Your task to perform on an android device: Clear the cart on costco. Add razer blade to the cart on costco, then select checkout. Image 0: 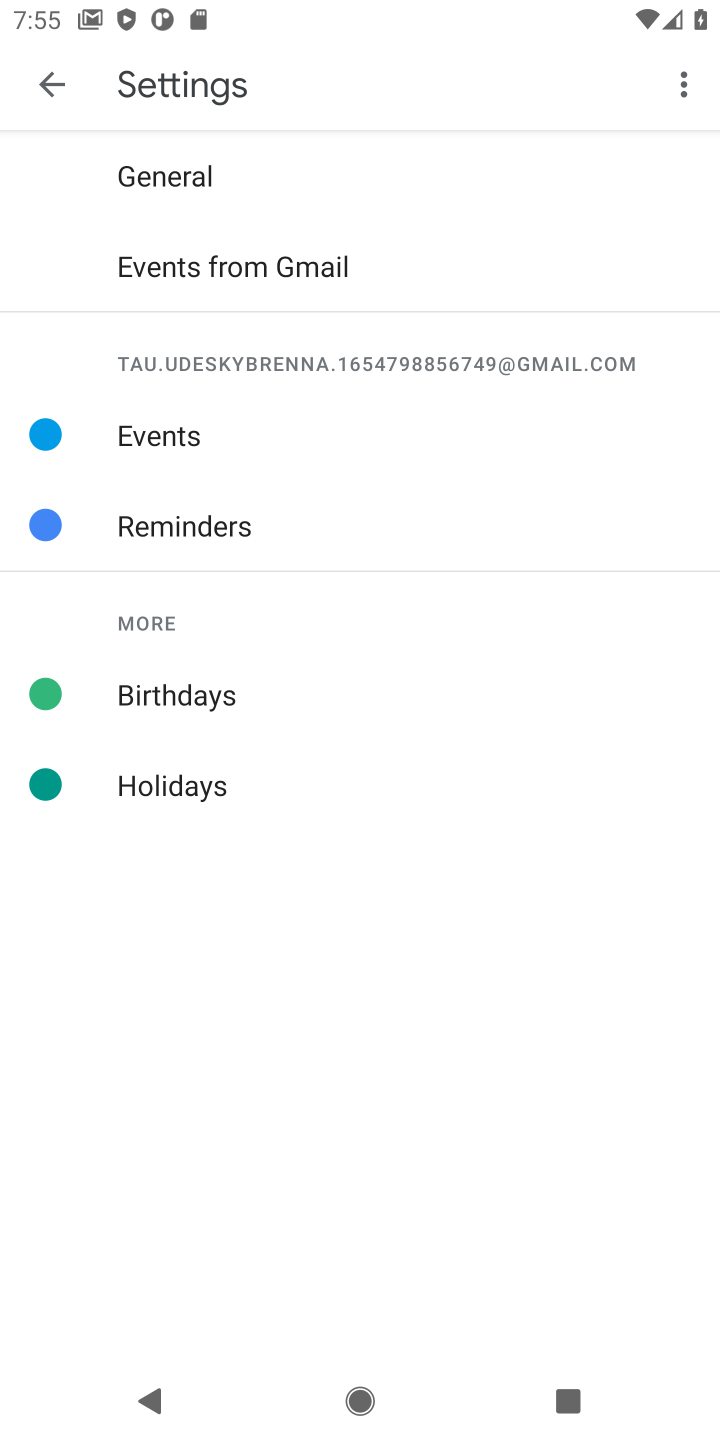
Step 0: press home button
Your task to perform on an android device: Clear the cart on costco. Add razer blade to the cart on costco, then select checkout. Image 1: 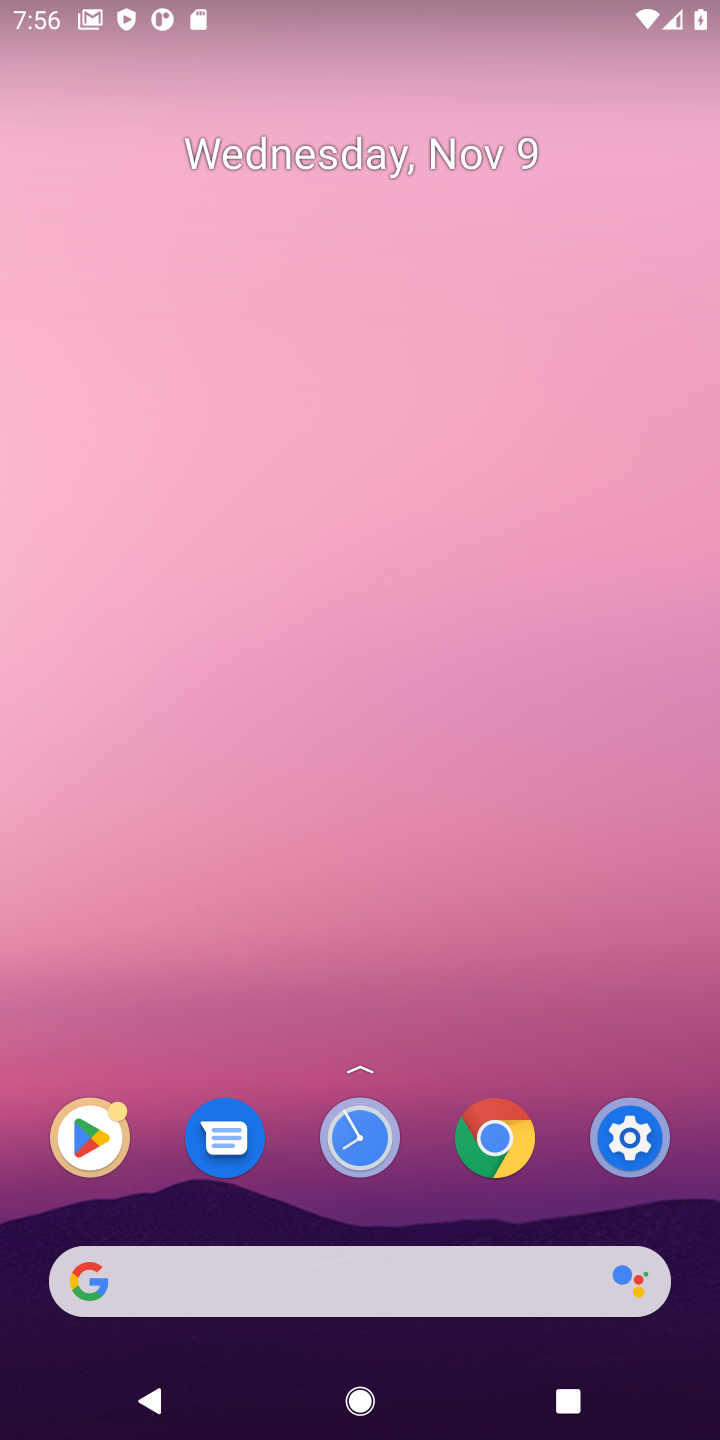
Step 1: drag from (423, 877) to (446, 186)
Your task to perform on an android device: Clear the cart on costco. Add razer blade to the cart on costco, then select checkout. Image 2: 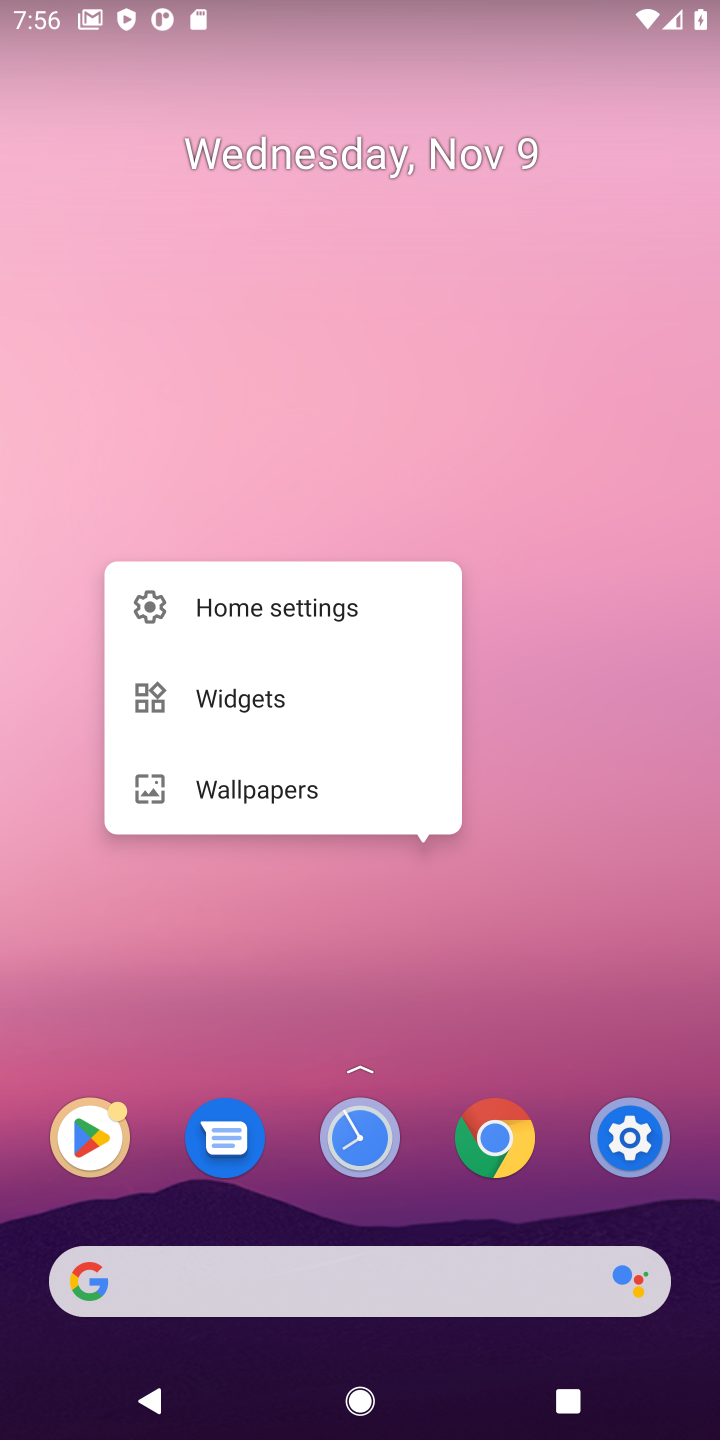
Step 2: click (602, 753)
Your task to perform on an android device: Clear the cart on costco. Add razer blade to the cart on costco, then select checkout. Image 3: 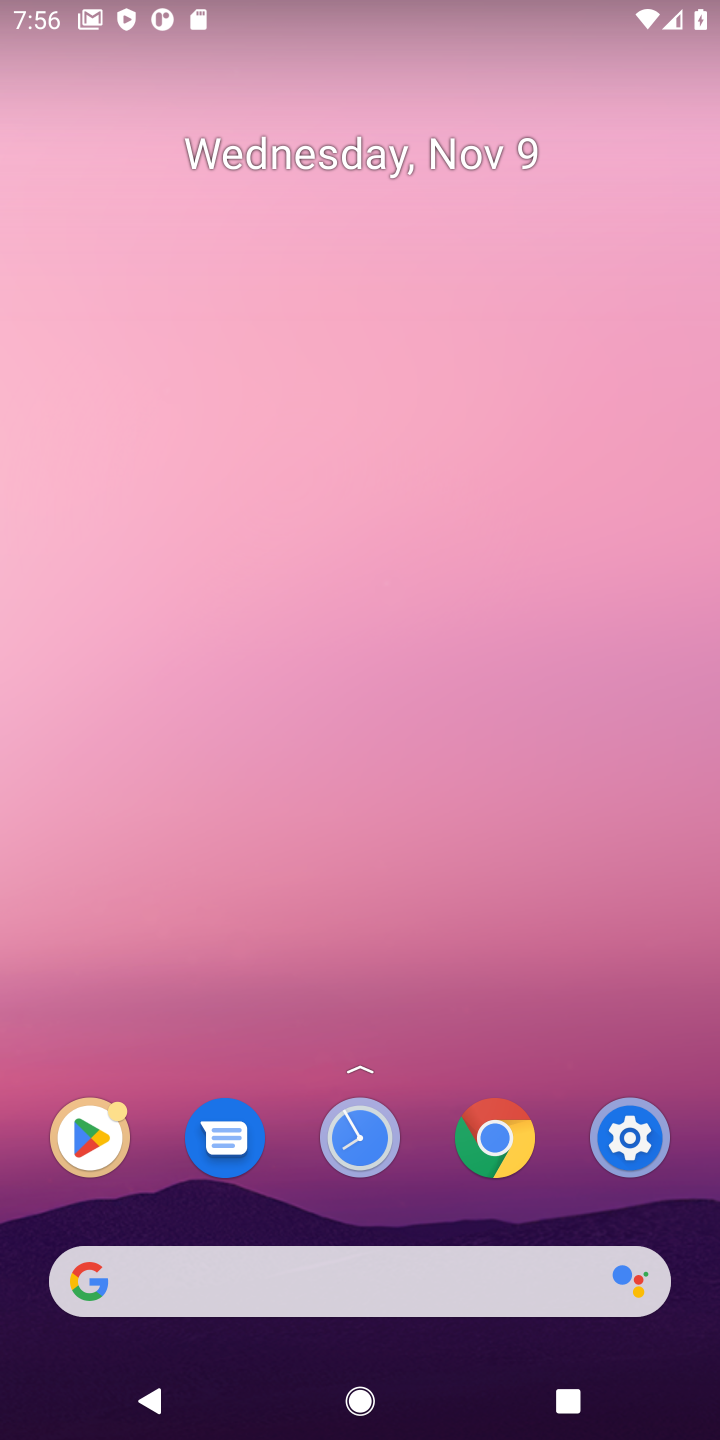
Step 3: drag from (438, 845) to (401, 189)
Your task to perform on an android device: Clear the cart on costco. Add razer blade to the cart on costco, then select checkout. Image 4: 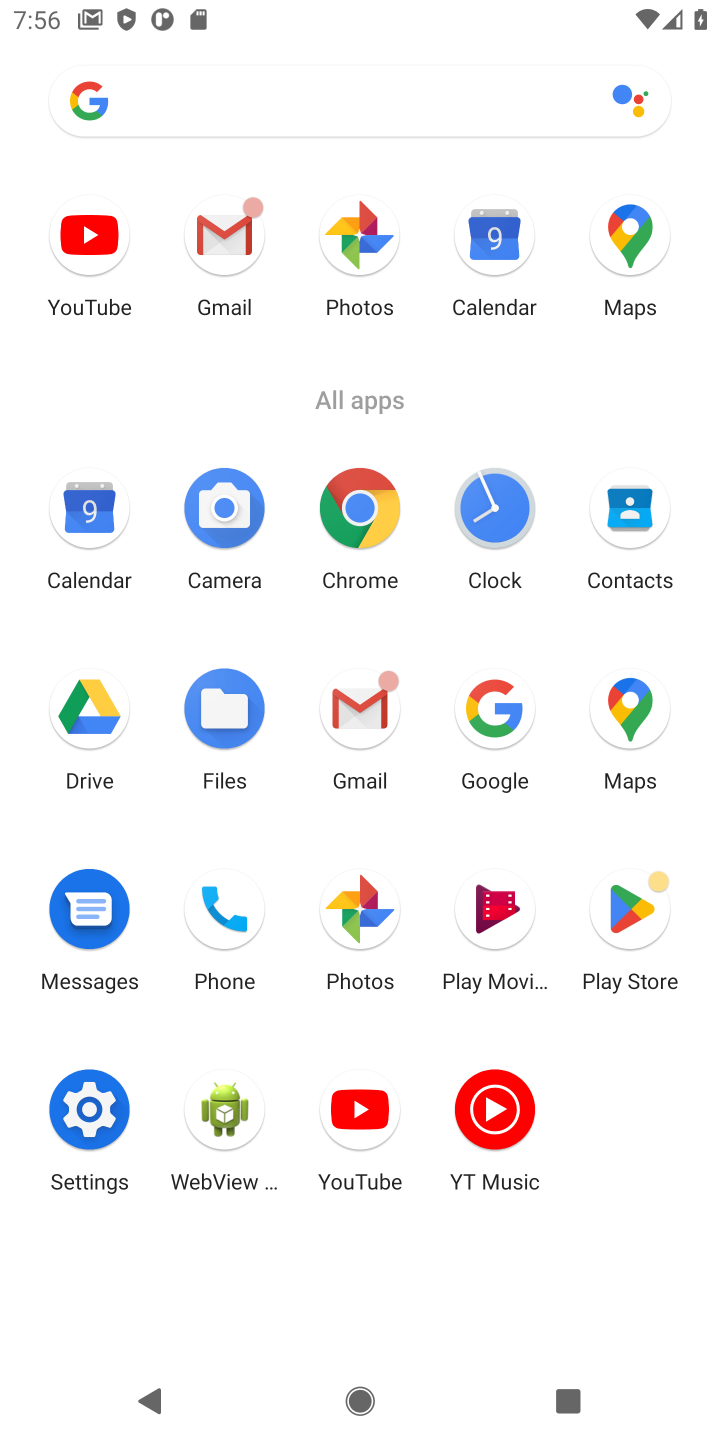
Step 4: click (356, 523)
Your task to perform on an android device: Clear the cart on costco. Add razer blade to the cart on costco, then select checkout. Image 5: 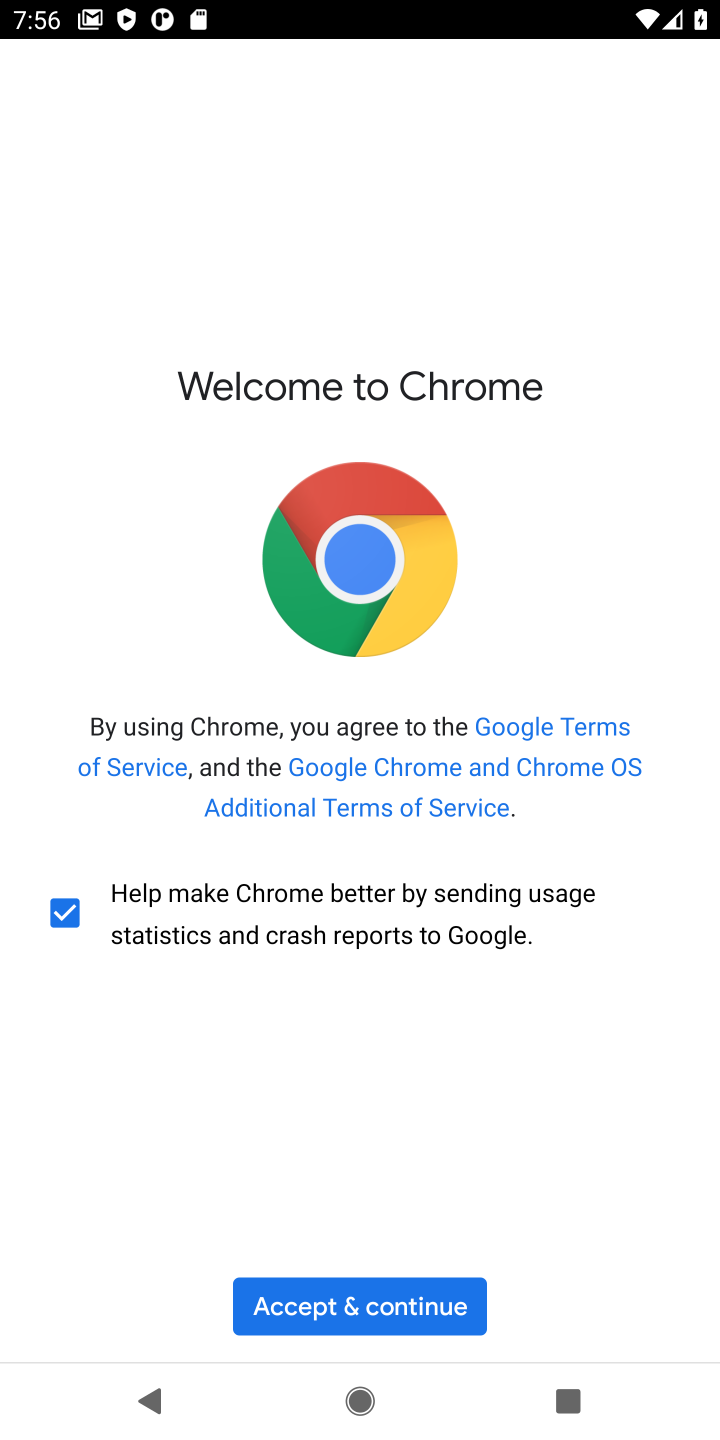
Step 5: click (367, 1310)
Your task to perform on an android device: Clear the cart on costco. Add razer blade to the cart on costco, then select checkout. Image 6: 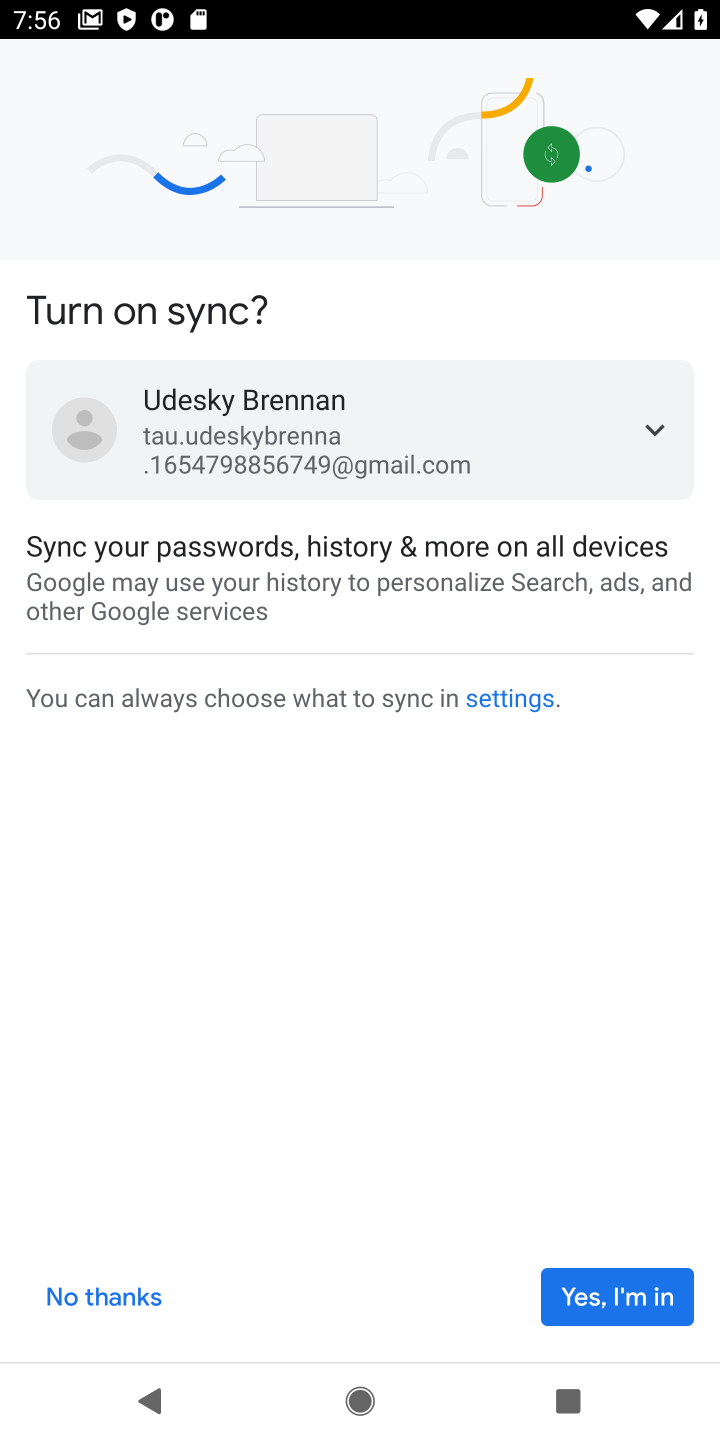
Step 6: click (568, 1283)
Your task to perform on an android device: Clear the cart on costco. Add razer blade to the cart on costco, then select checkout. Image 7: 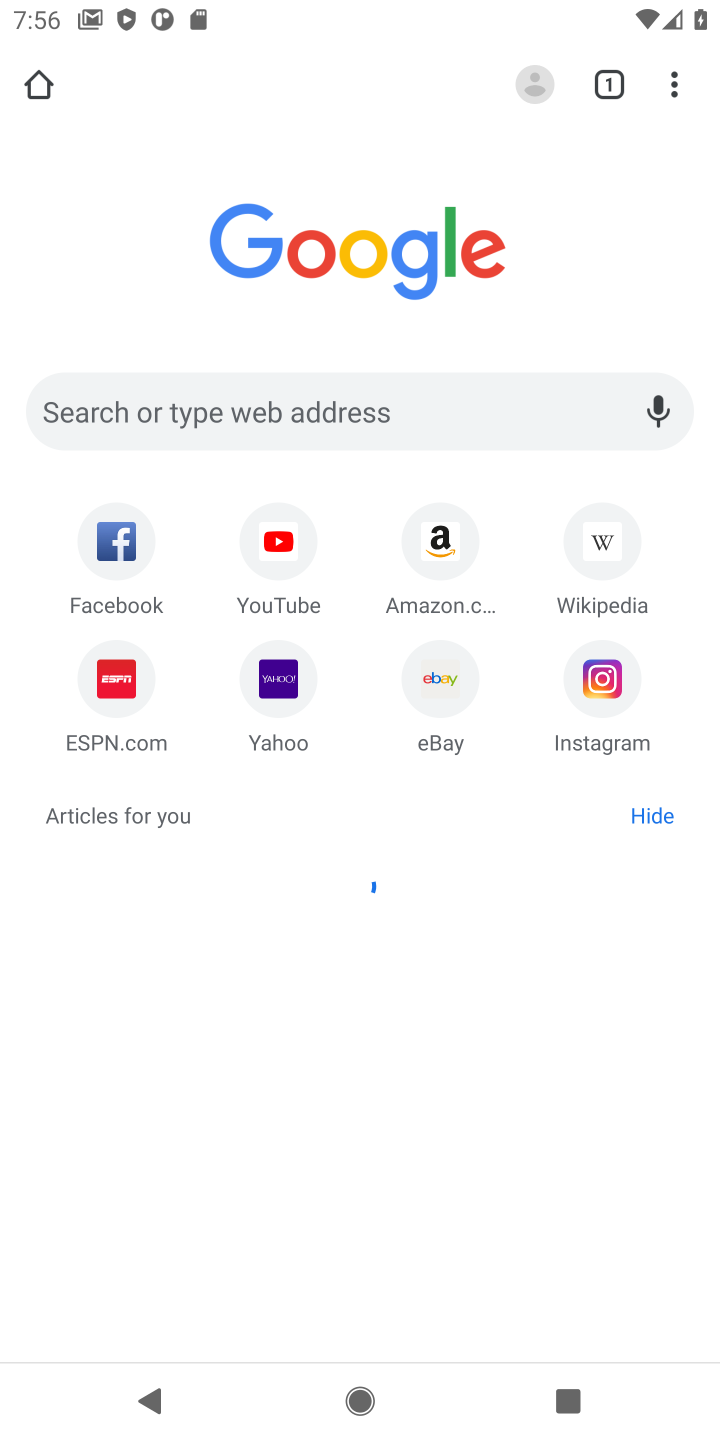
Step 7: click (434, 422)
Your task to perform on an android device: Clear the cart on costco. Add razer blade to the cart on costco, then select checkout. Image 8: 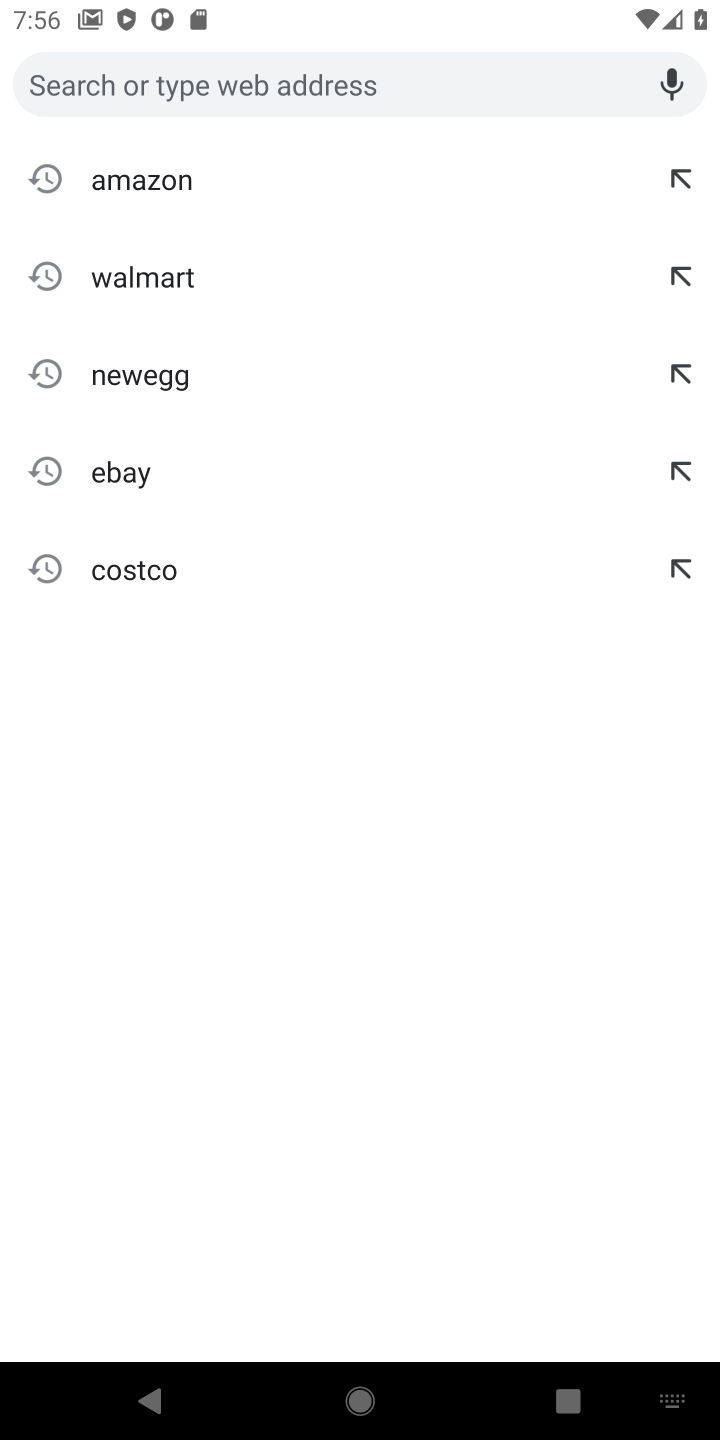
Step 8: type "costco.com"
Your task to perform on an android device: Clear the cart on costco. Add razer blade to the cart on costco, then select checkout. Image 9: 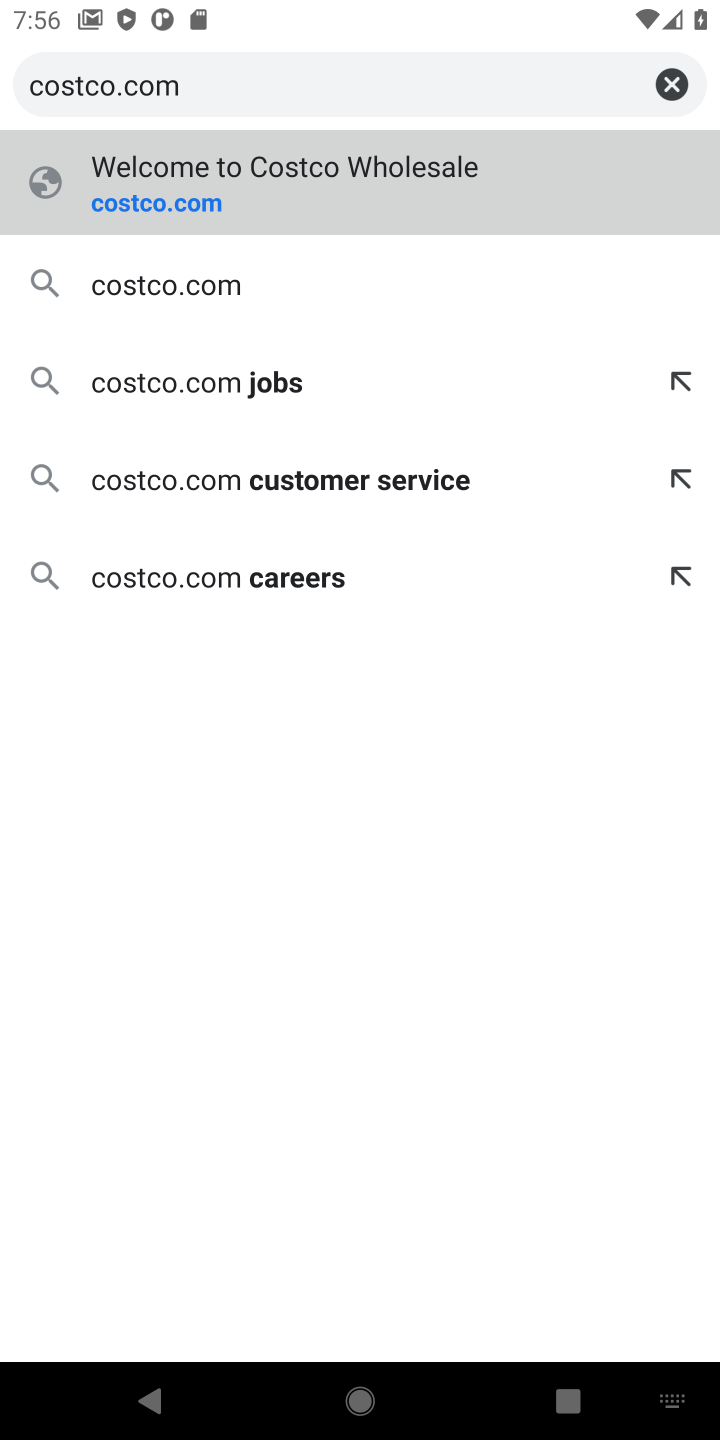
Step 9: press enter
Your task to perform on an android device: Clear the cart on costco. Add razer blade to the cart on costco, then select checkout. Image 10: 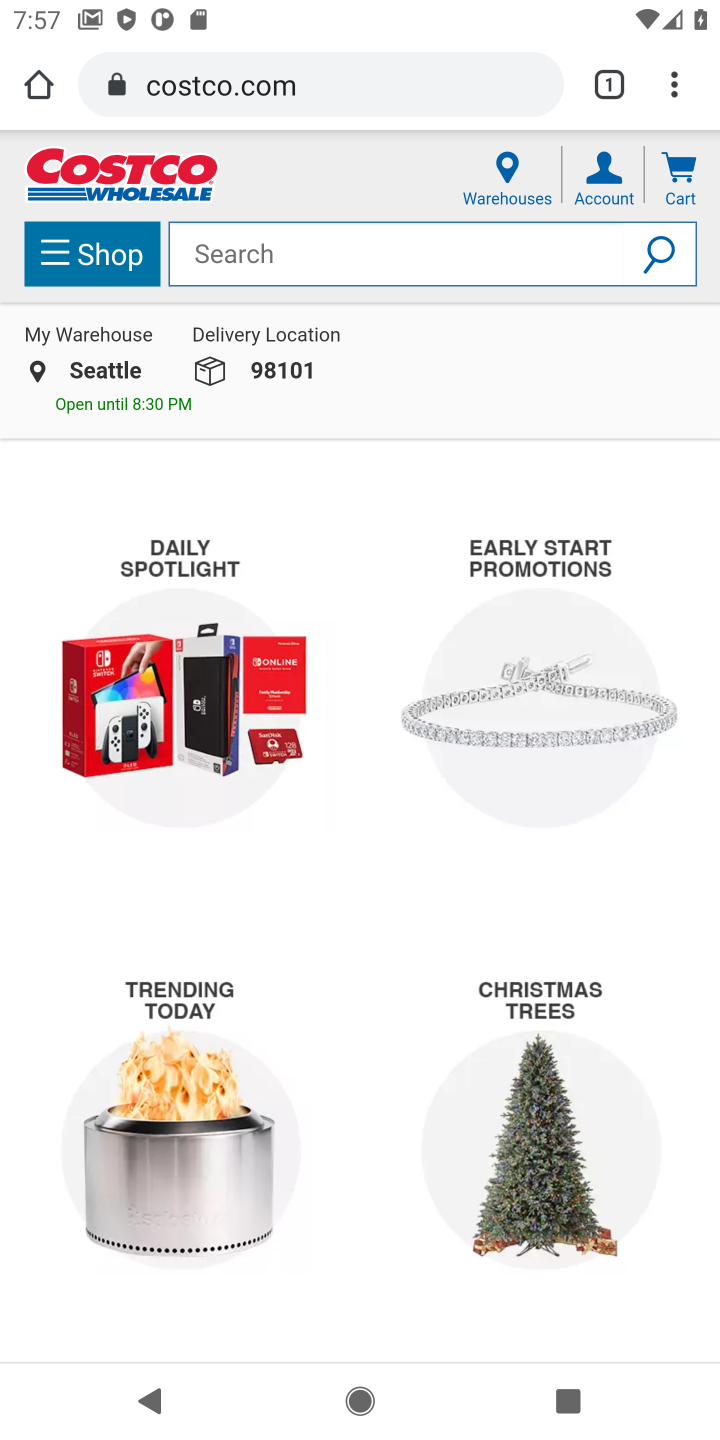
Step 10: click (671, 167)
Your task to perform on an android device: Clear the cart on costco. Add razer blade to the cart on costco, then select checkout. Image 11: 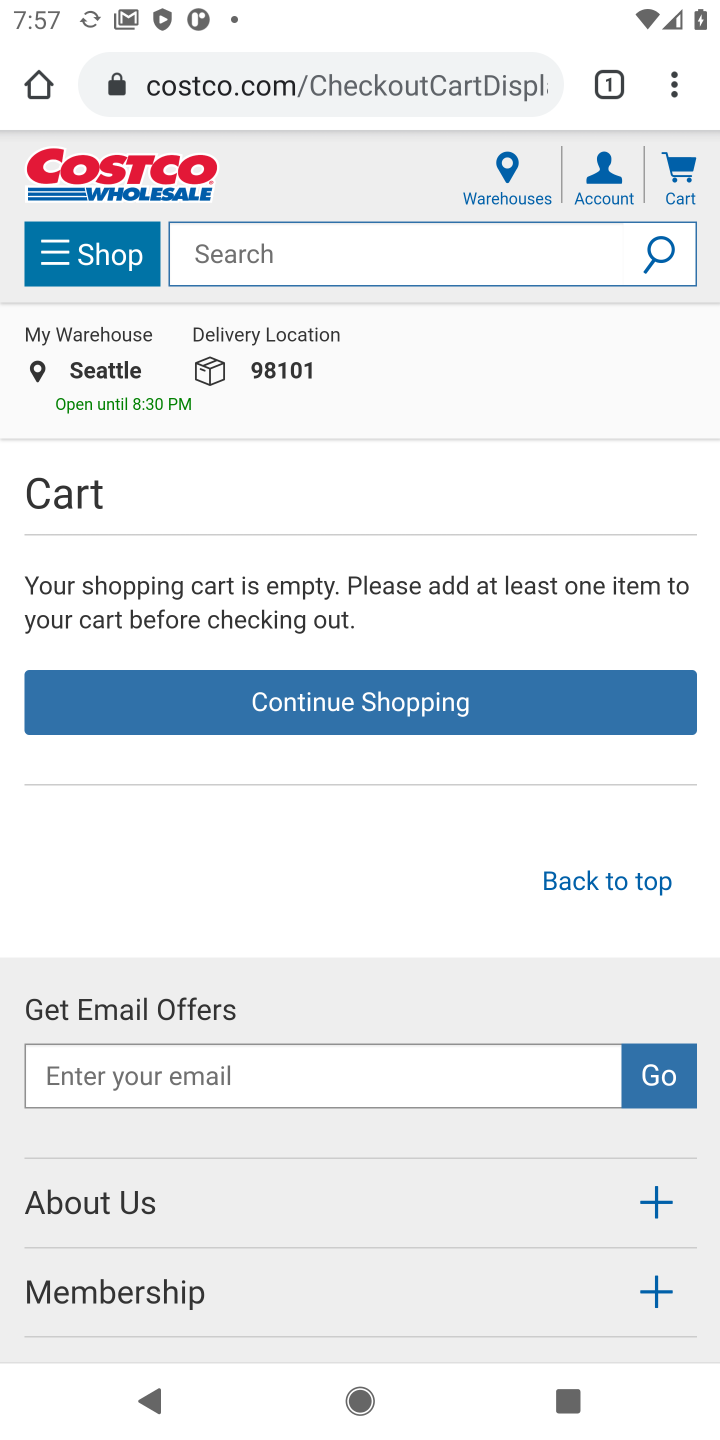
Step 11: click (431, 250)
Your task to perform on an android device: Clear the cart on costco. Add razer blade to the cart on costco, then select checkout. Image 12: 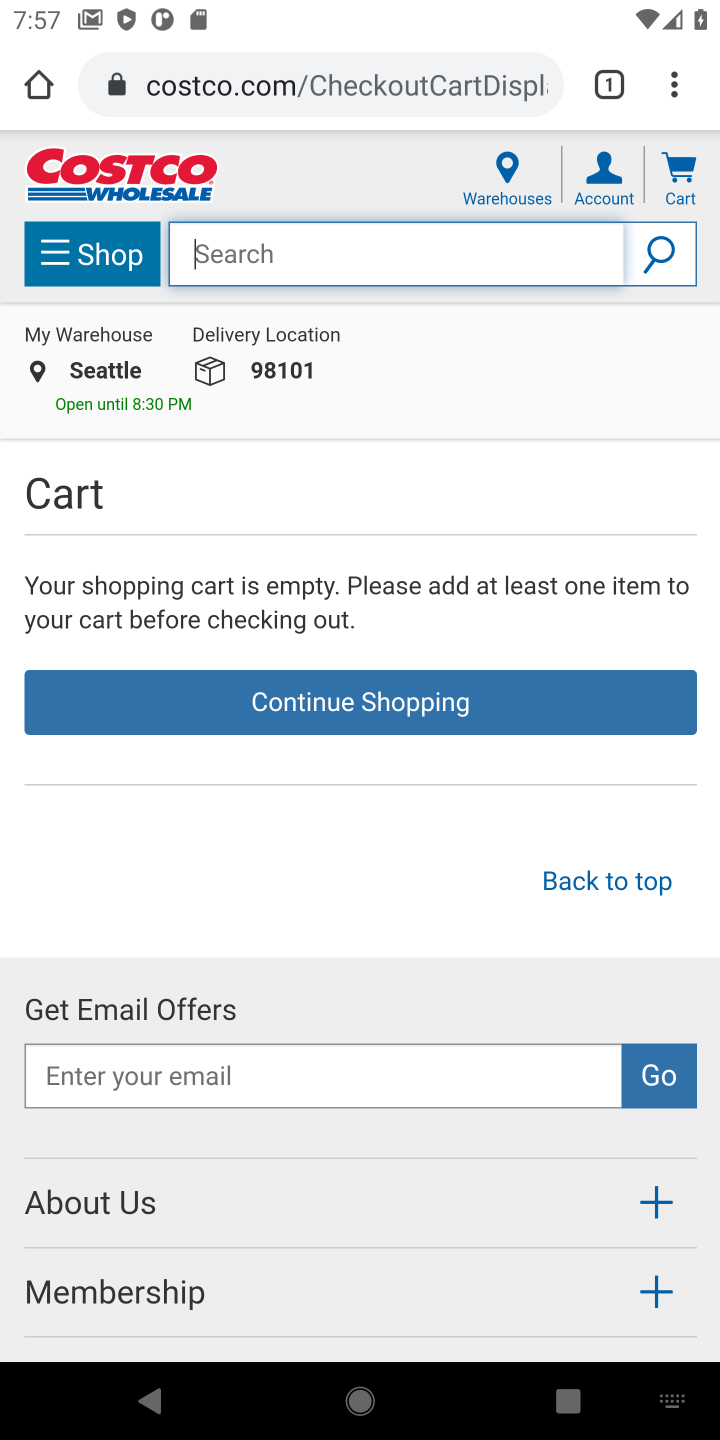
Step 12: type "razer blade"
Your task to perform on an android device: Clear the cart on costco. Add razer blade to the cart on costco, then select checkout. Image 13: 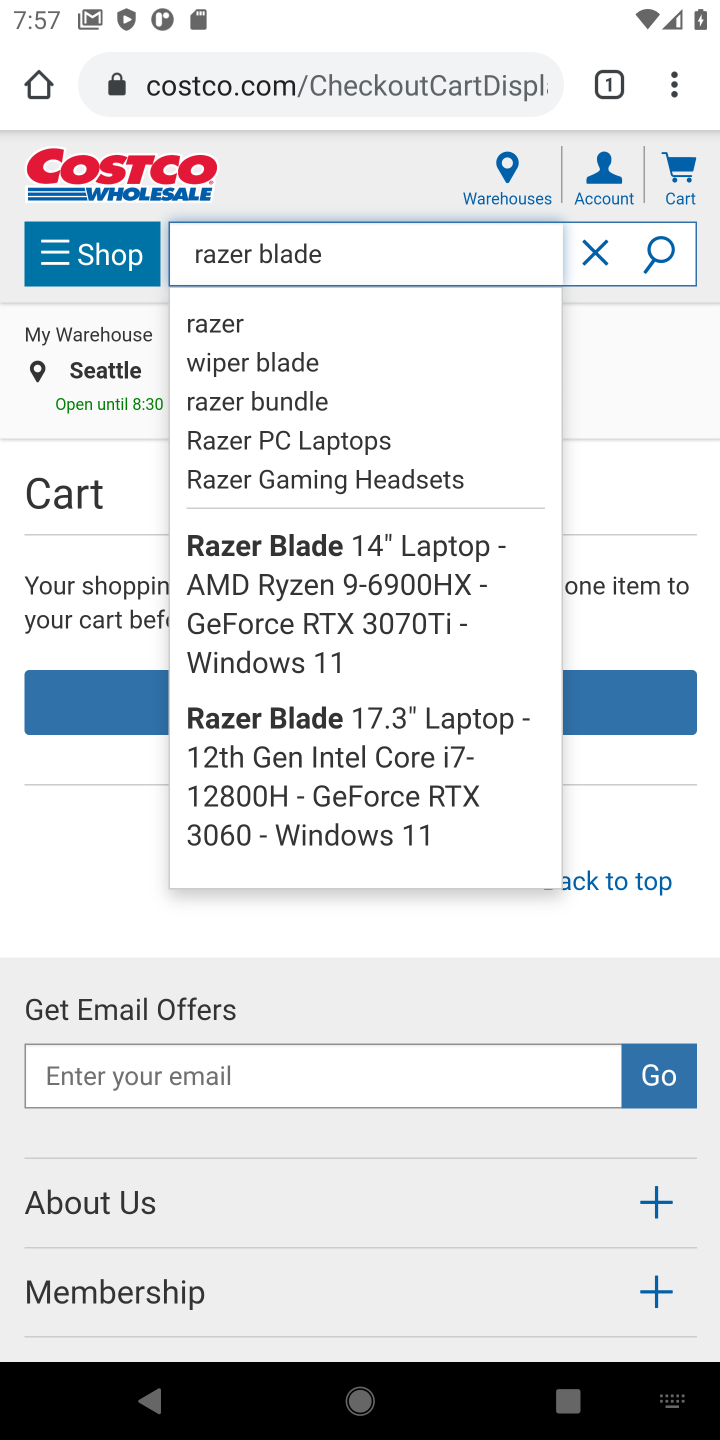
Step 13: press enter
Your task to perform on an android device: Clear the cart on costco. Add razer blade to the cart on costco, then select checkout. Image 14: 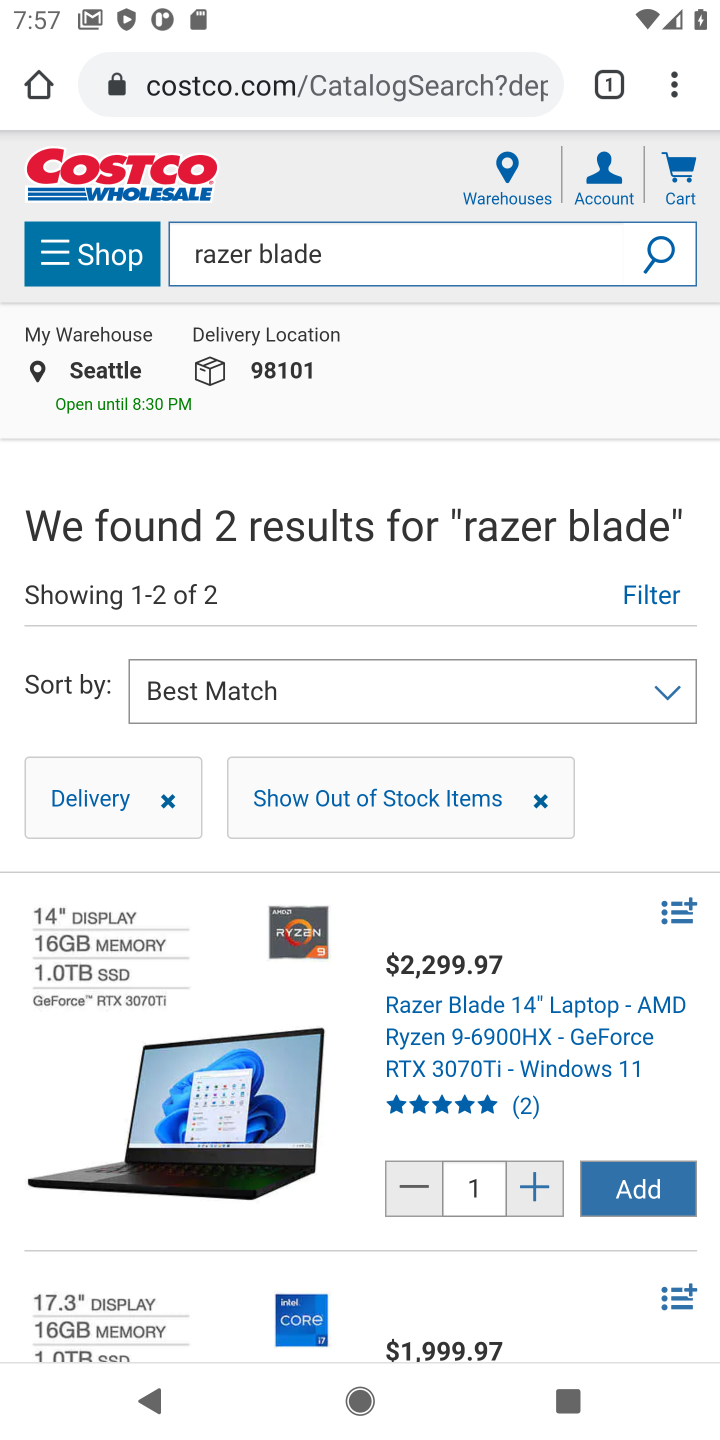
Step 14: click (673, 1189)
Your task to perform on an android device: Clear the cart on costco. Add razer blade to the cart on costco, then select checkout. Image 15: 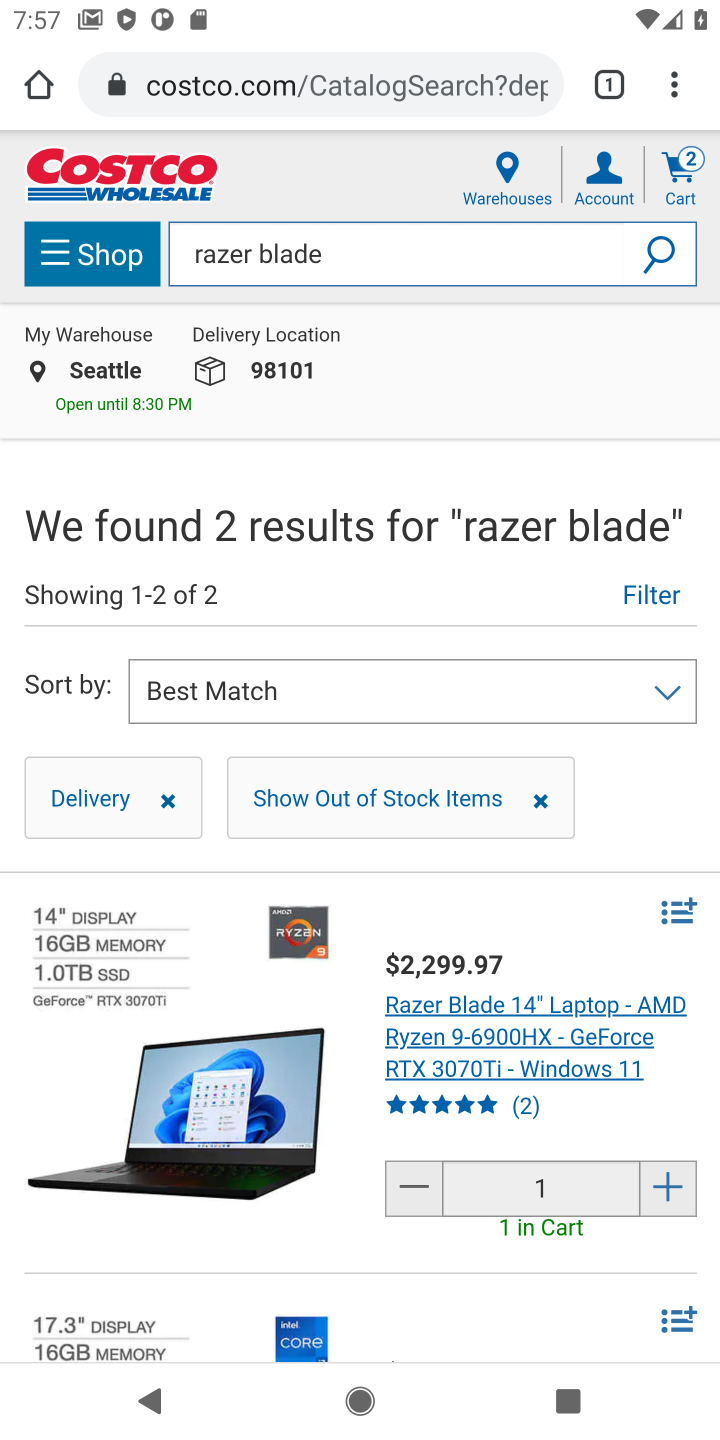
Step 15: drag from (365, 1115) to (310, 667)
Your task to perform on an android device: Clear the cart on costco. Add razer blade to the cart on costco, then select checkout. Image 16: 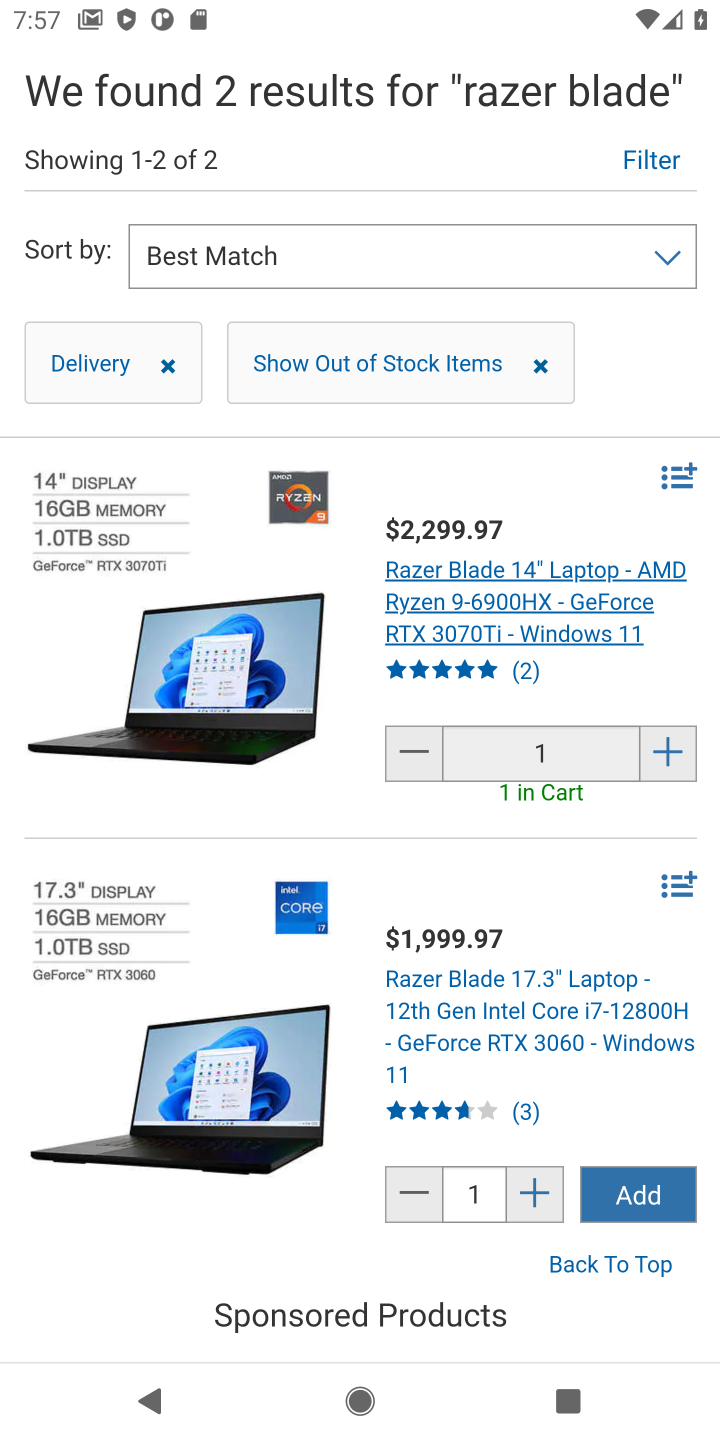
Step 16: drag from (546, 348) to (397, 1309)
Your task to perform on an android device: Clear the cart on costco. Add razer blade to the cart on costco, then select checkout. Image 17: 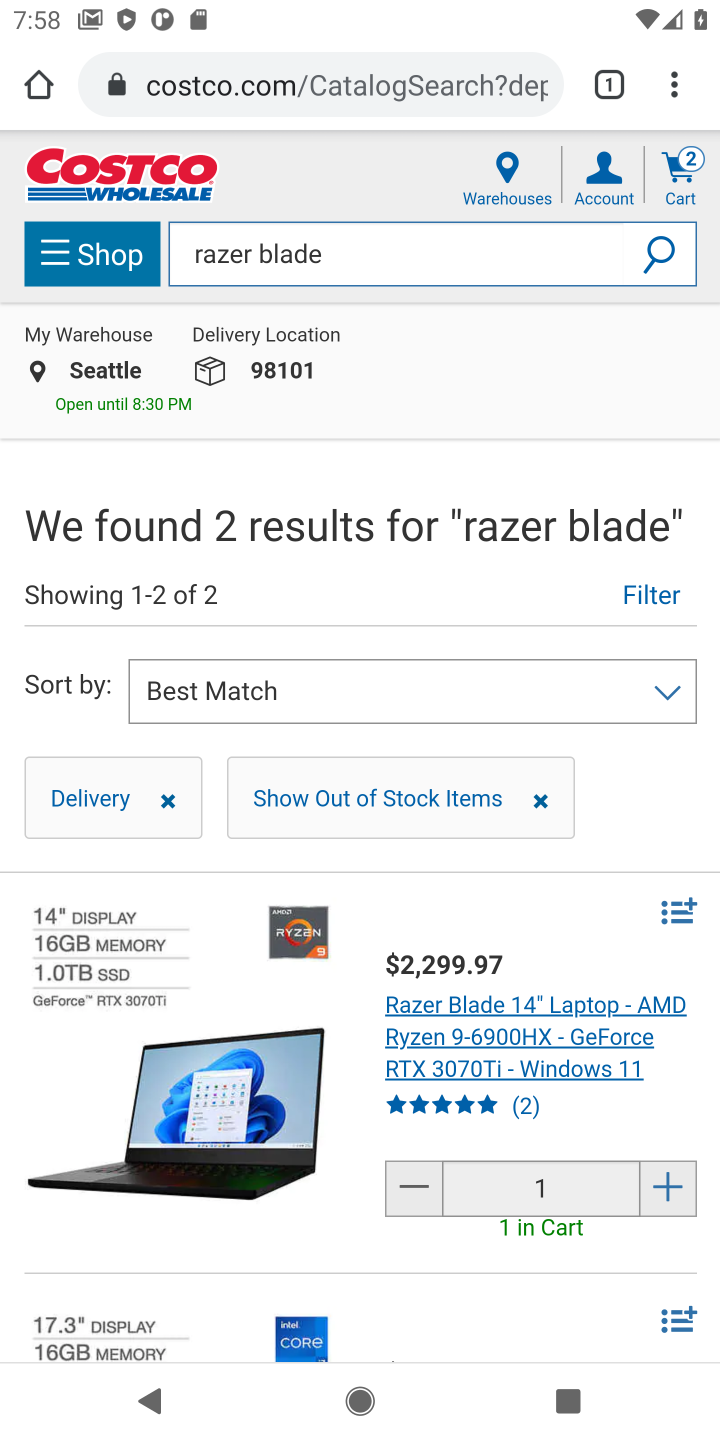
Step 17: click (660, 187)
Your task to perform on an android device: Clear the cart on costco. Add razer blade to the cart on costco, then select checkout. Image 18: 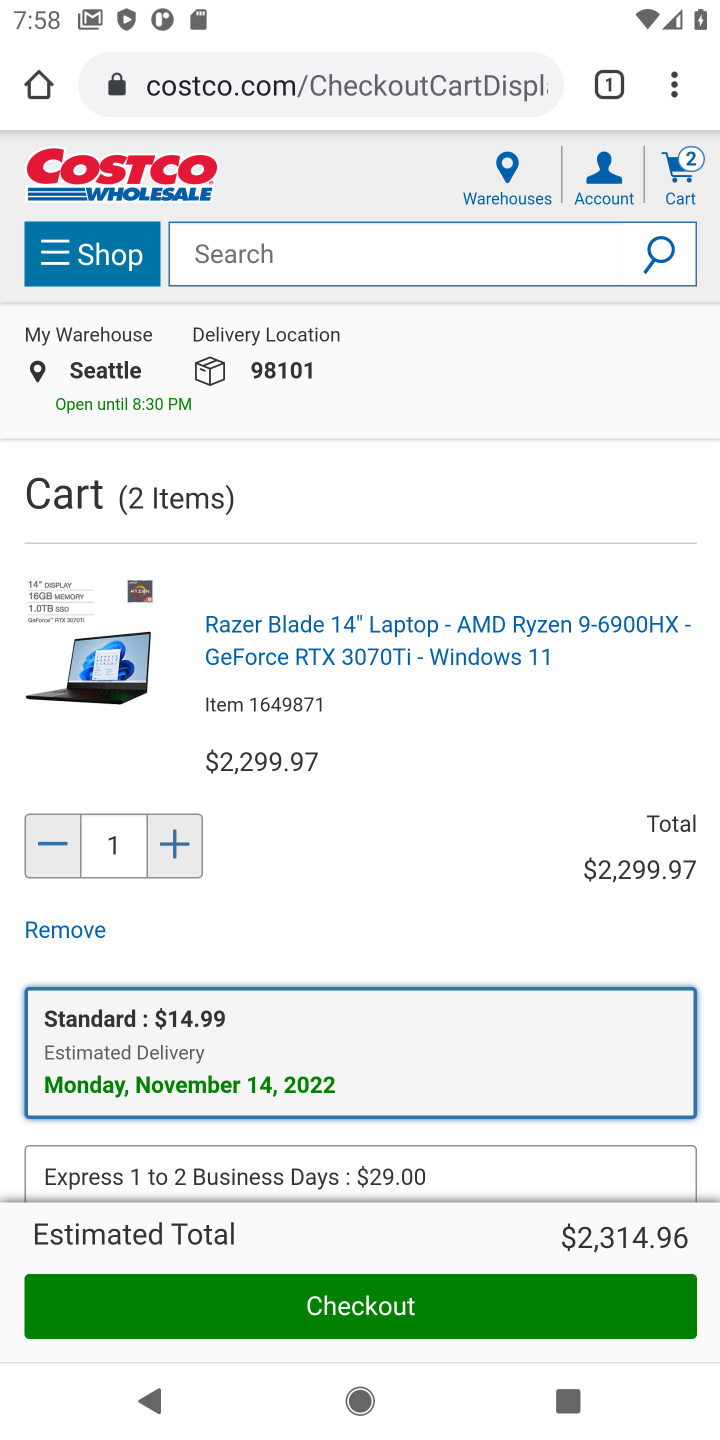
Step 18: click (428, 1303)
Your task to perform on an android device: Clear the cart on costco. Add razer blade to the cart on costco, then select checkout. Image 19: 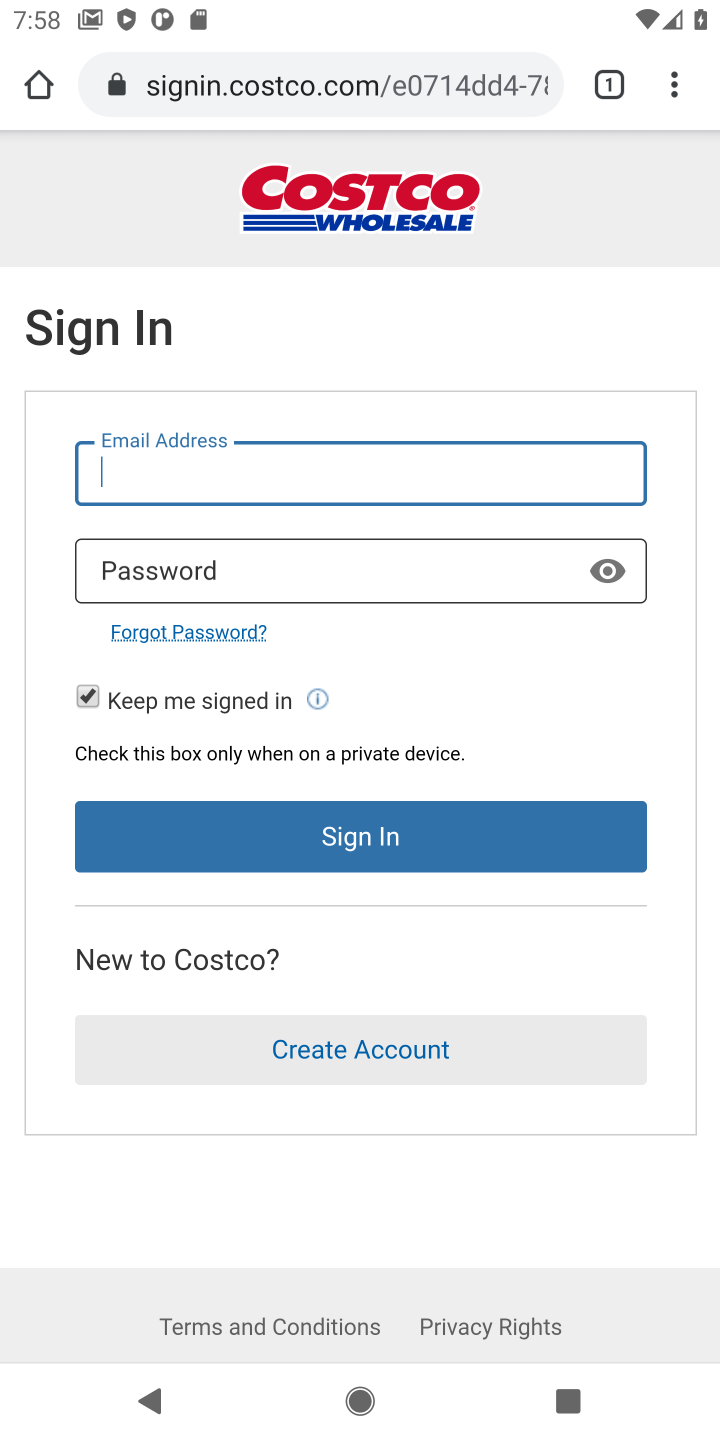
Step 19: task complete